Your task to perform on an android device: Open Google Chrome and click the shortcut for Amazon.com Image 0: 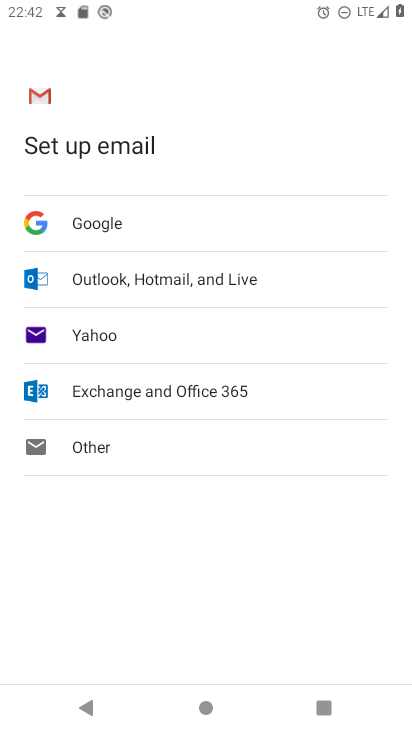
Step 0: press home button
Your task to perform on an android device: Open Google Chrome and click the shortcut for Amazon.com Image 1: 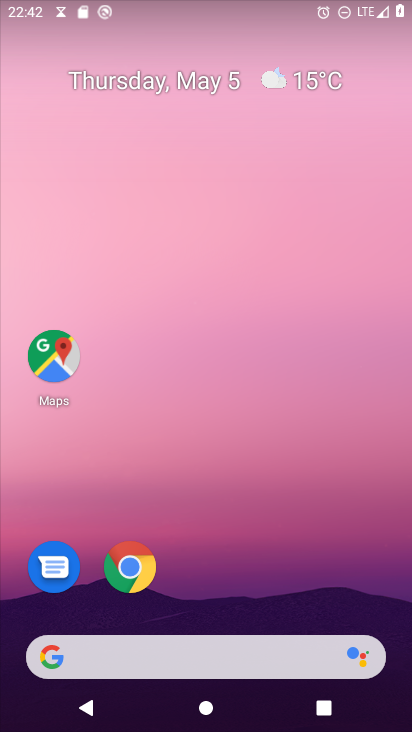
Step 1: click (132, 568)
Your task to perform on an android device: Open Google Chrome and click the shortcut for Amazon.com Image 2: 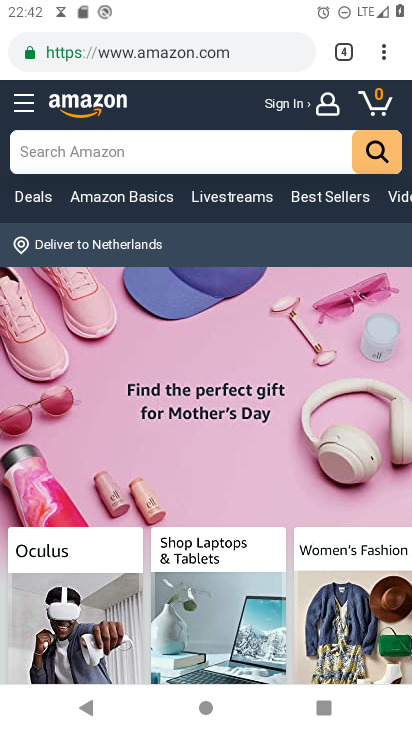
Step 2: task complete